Your task to perform on an android device: set an alarm Image 0: 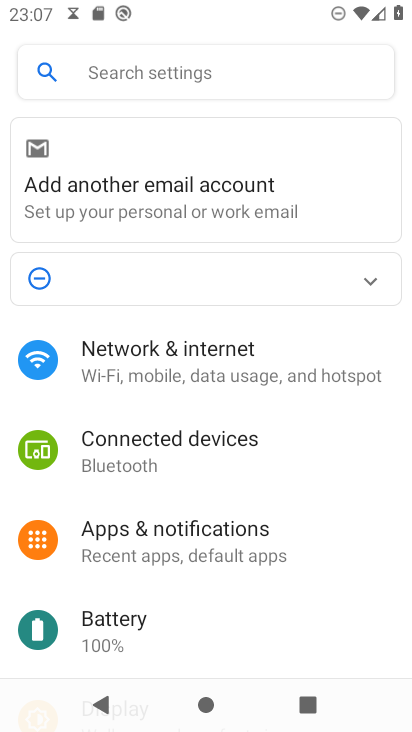
Step 0: press home button
Your task to perform on an android device: set an alarm Image 1: 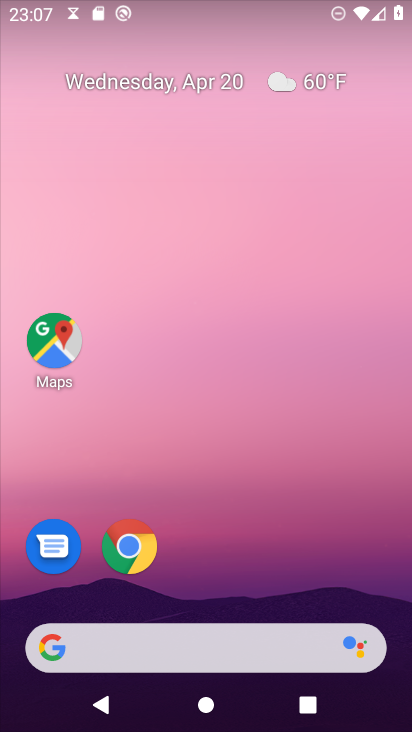
Step 1: drag from (253, 580) to (240, 42)
Your task to perform on an android device: set an alarm Image 2: 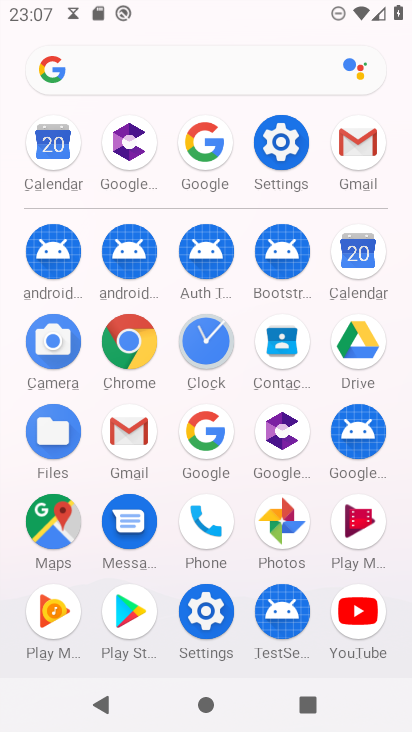
Step 2: click (215, 350)
Your task to perform on an android device: set an alarm Image 3: 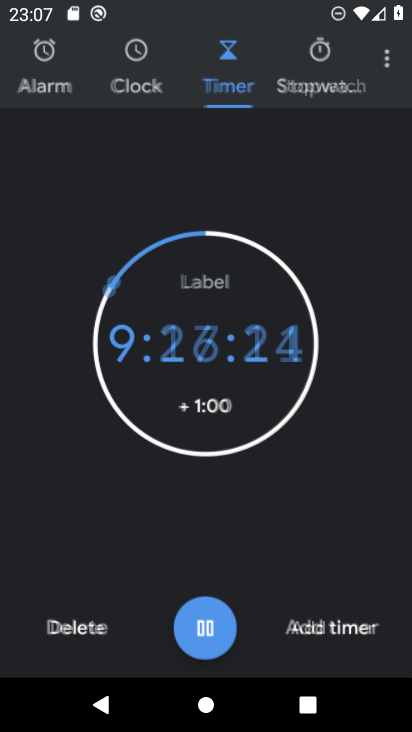
Step 3: click (49, 75)
Your task to perform on an android device: set an alarm Image 4: 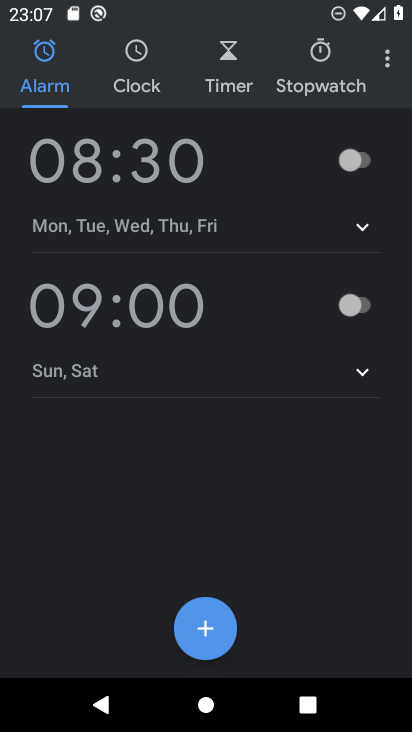
Step 4: click (368, 156)
Your task to perform on an android device: set an alarm Image 5: 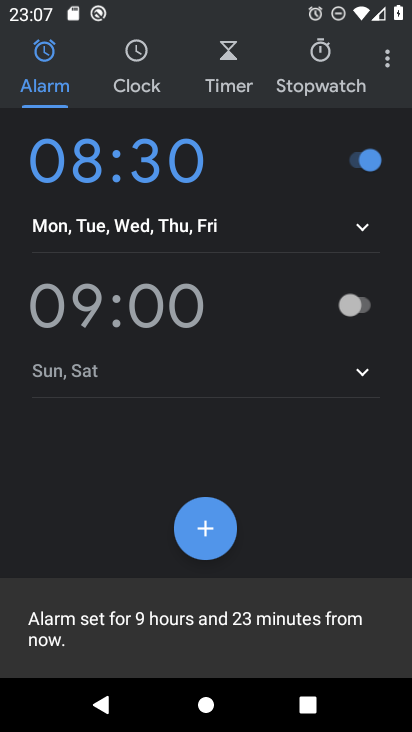
Step 5: task complete